Your task to perform on an android device: Open sound settings Image 0: 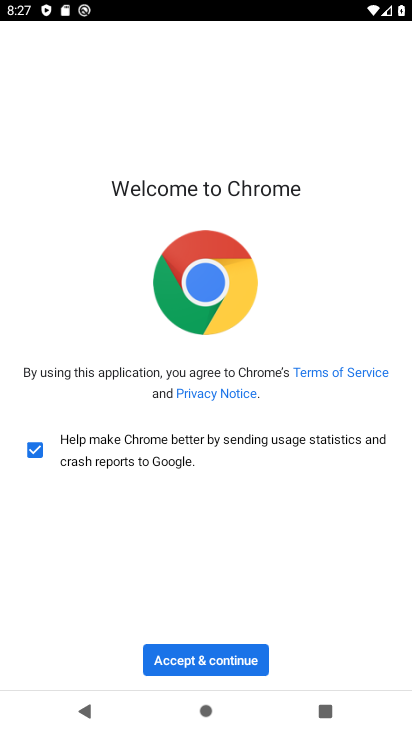
Step 0: click (247, 665)
Your task to perform on an android device: Open sound settings Image 1: 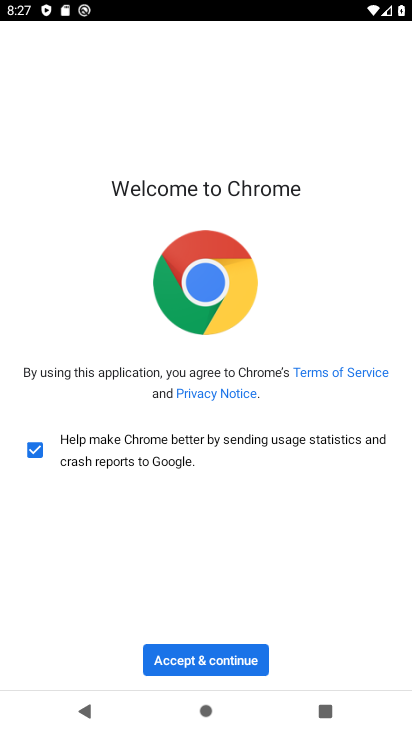
Step 1: click (246, 664)
Your task to perform on an android device: Open sound settings Image 2: 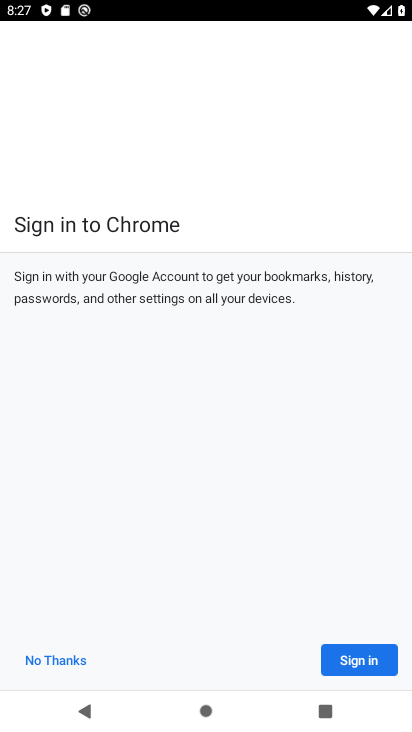
Step 2: click (246, 664)
Your task to perform on an android device: Open sound settings Image 3: 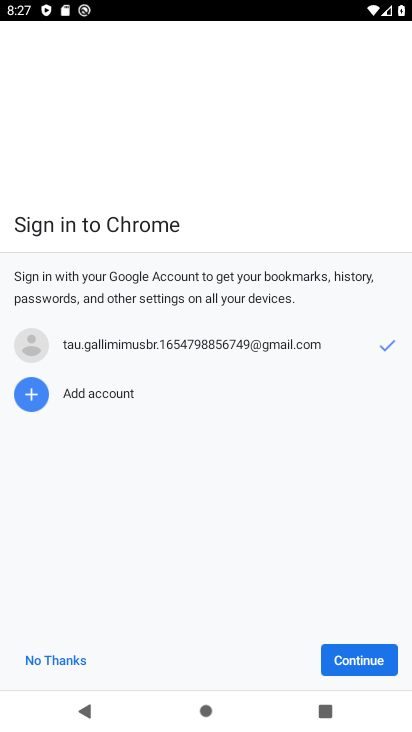
Step 3: press back button
Your task to perform on an android device: Open sound settings Image 4: 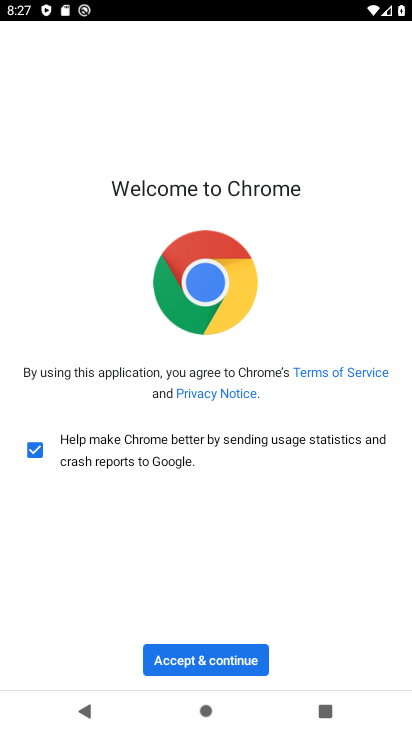
Step 4: press back button
Your task to perform on an android device: Open sound settings Image 5: 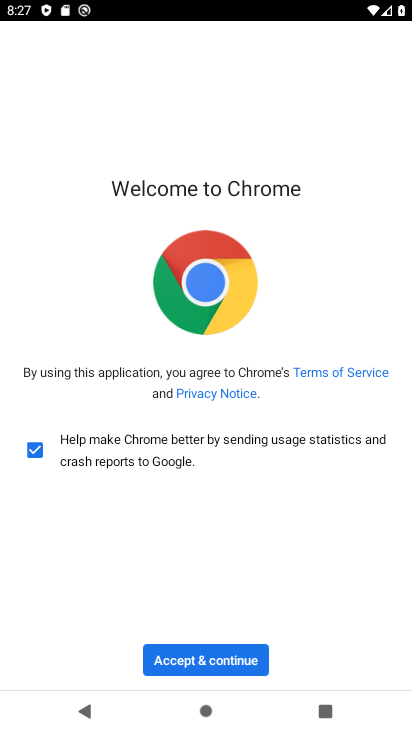
Step 5: press back button
Your task to perform on an android device: Open sound settings Image 6: 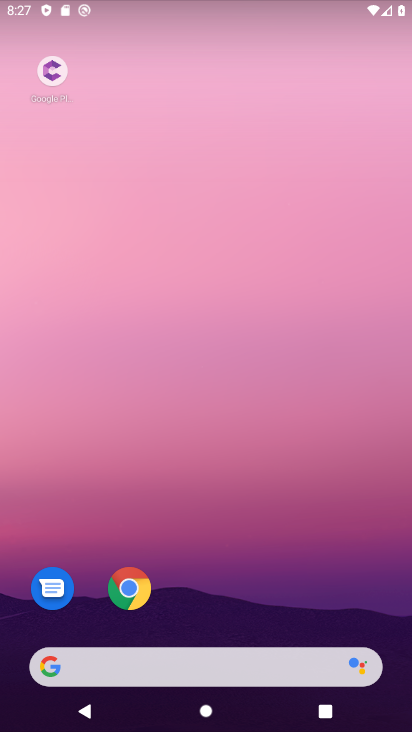
Step 6: press home button
Your task to perform on an android device: Open sound settings Image 7: 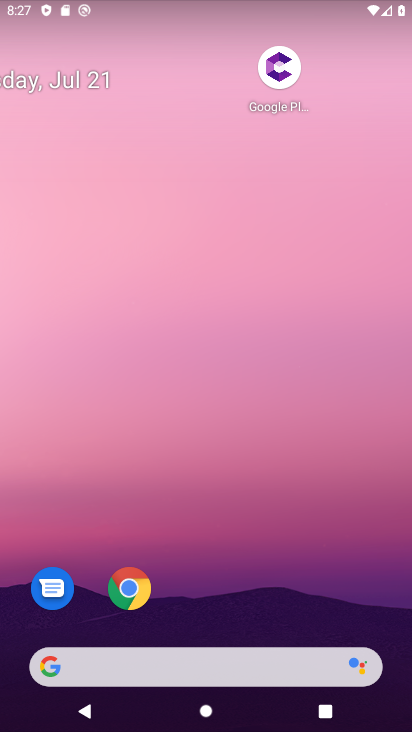
Step 7: press home button
Your task to perform on an android device: Open sound settings Image 8: 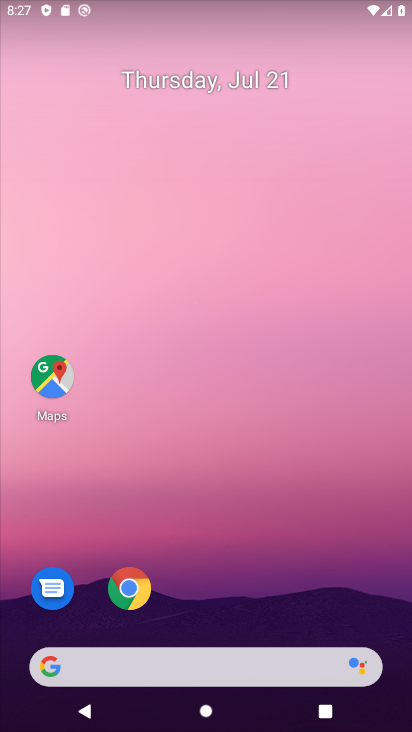
Step 8: drag from (278, 500) to (208, 257)
Your task to perform on an android device: Open sound settings Image 9: 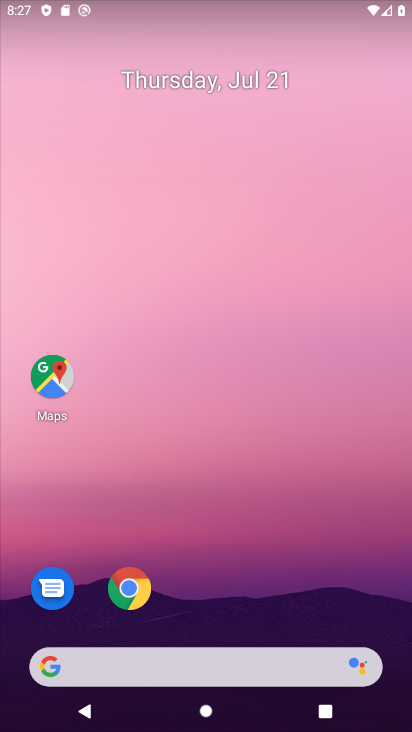
Step 9: drag from (193, 201) to (194, 157)
Your task to perform on an android device: Open sound settings Image 10: 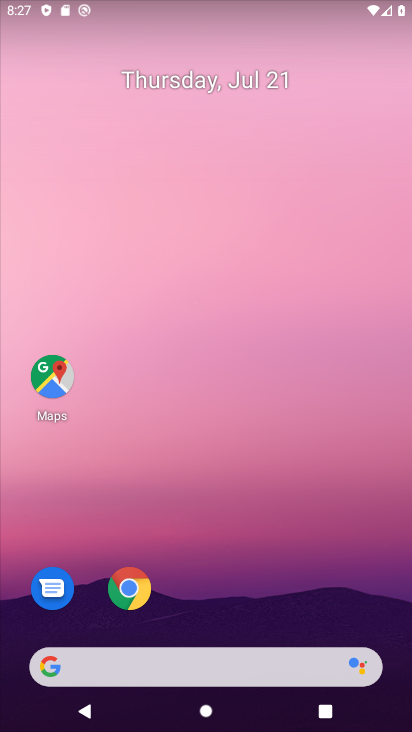
Step 10: click (215, 226)
Your task to perform on an android device: Open sound settings Image 11: 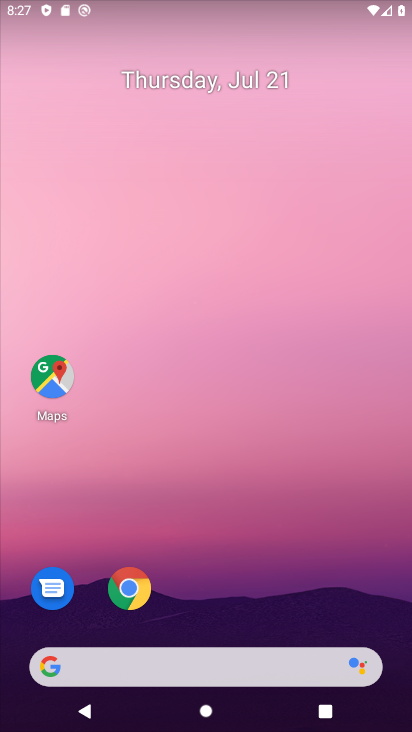
Step 11: drag from (239, 197) to (239, 63)
Your task to perform on an android device: Open sound settings Image 12: 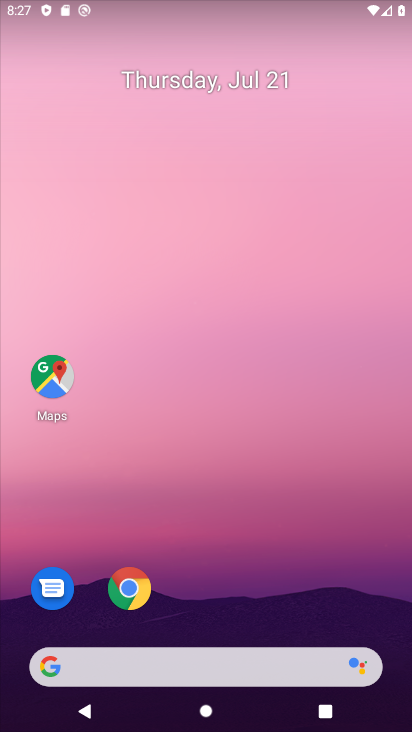
Step 12: drag from (231, 424) to (243, 50)
Your task to perform on an android device: Open sound settings Image 13: 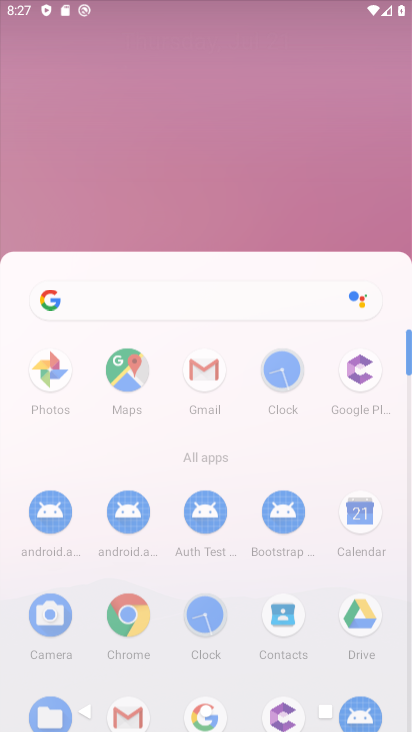
Step 13: drag from (171, 662) to (202, 171)
Your task to perform on an android device: Open sound settings Image 14: 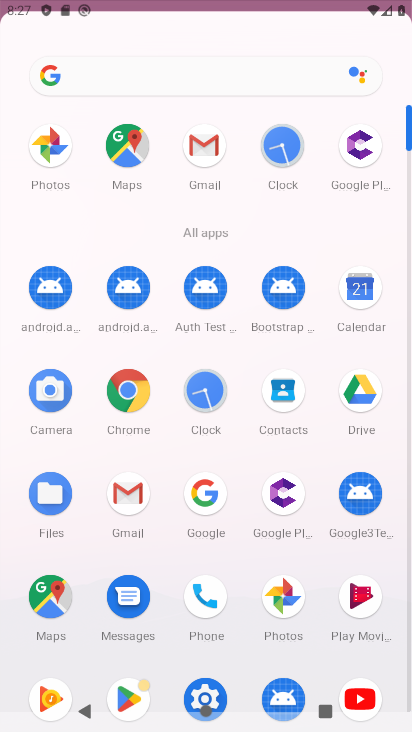
Step 14: drag from (219, 475) to (213, 97)
Your task to perform on an android device: Open sound settings Image 15: 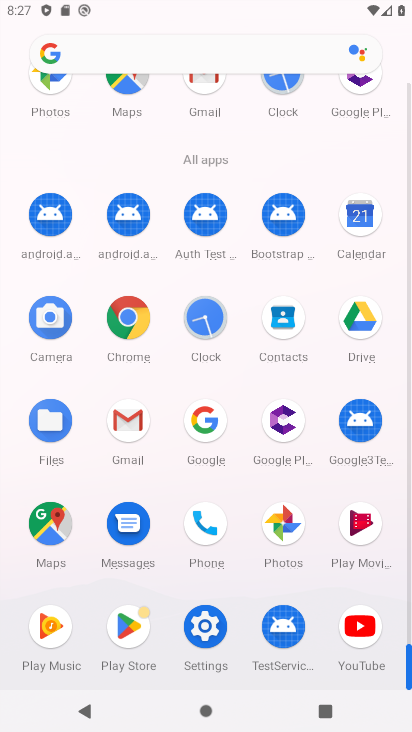
Step 15: click (200, 634)
Your task to perform on an android device: Open sound settings Image 16: 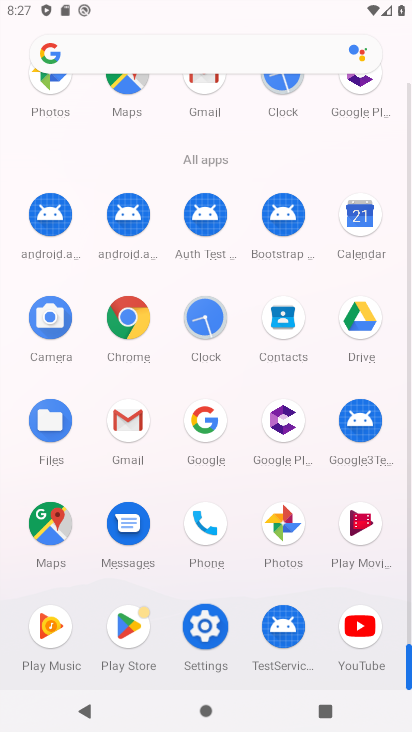
Step 16: click (200, 631)
Your task to perform on an android device: Open sound settings Image 17: 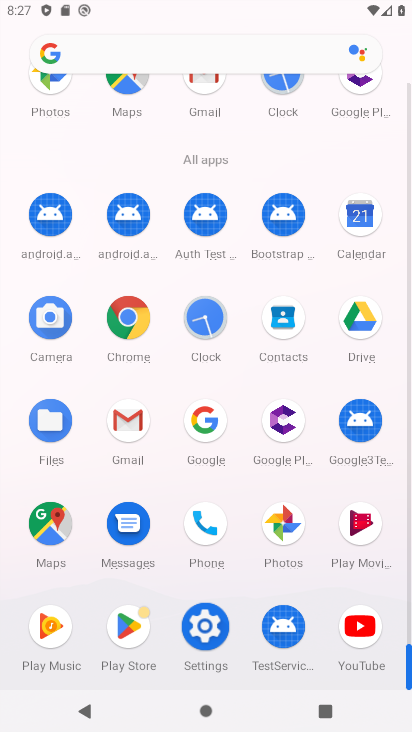
Step 17: click (203, 629)
Your task to perform on an android device: Open sound settings Image 18: 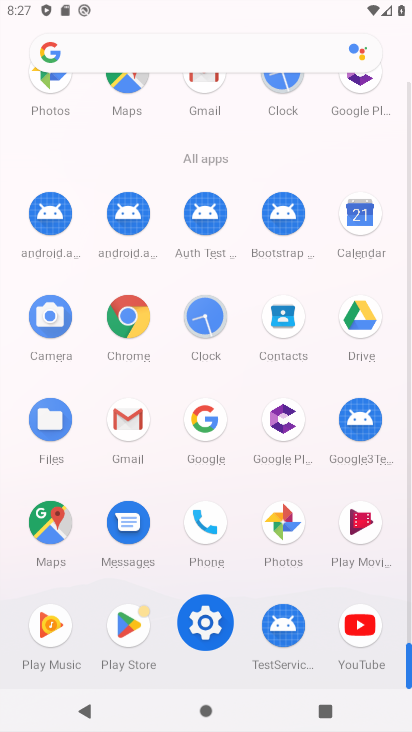
Step 18: click (213, 611)
Your task to perform on an android device: Open sound settings Image 19: 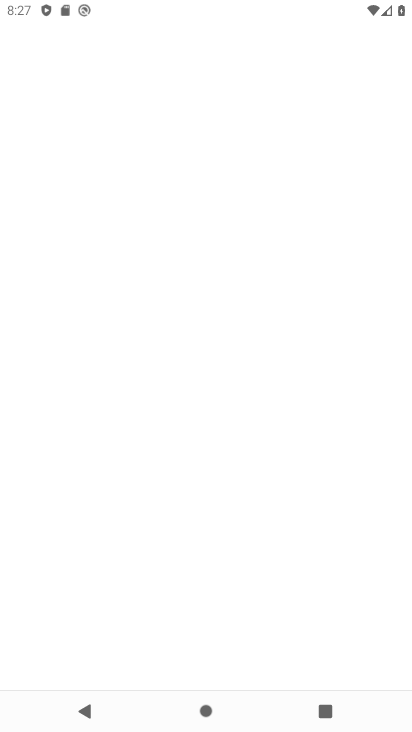
Step 19: click (213, 611)
Your task to perform on an android device: Open sound settings Image 20: 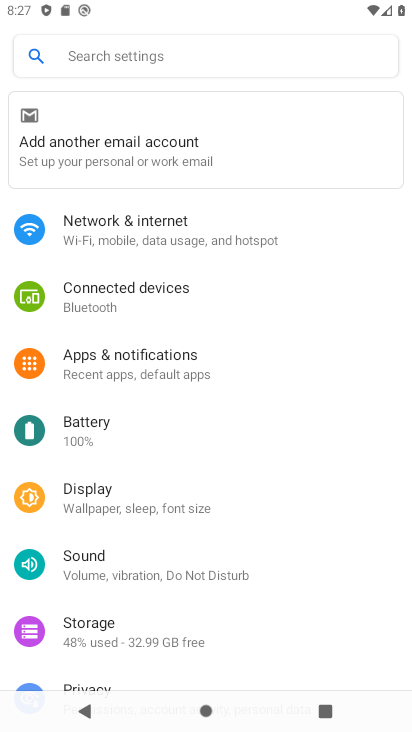
Step 20: click (78, 573)
Your task to perform on an android device: Open sound settings Image 21: 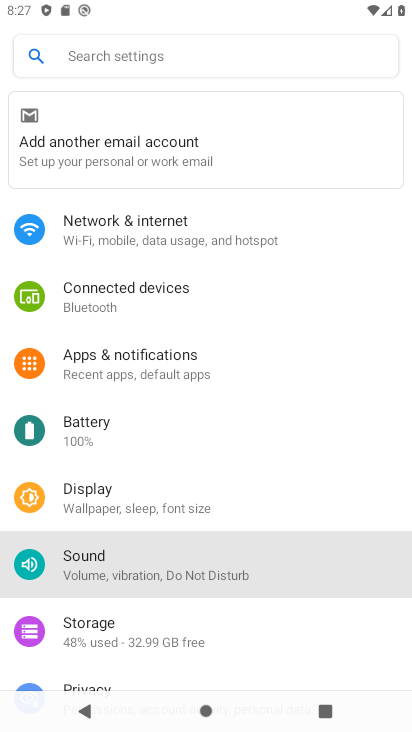
Step 21: click (82, 567)
Your task to perform on an android device: Open sound settings Image 22: 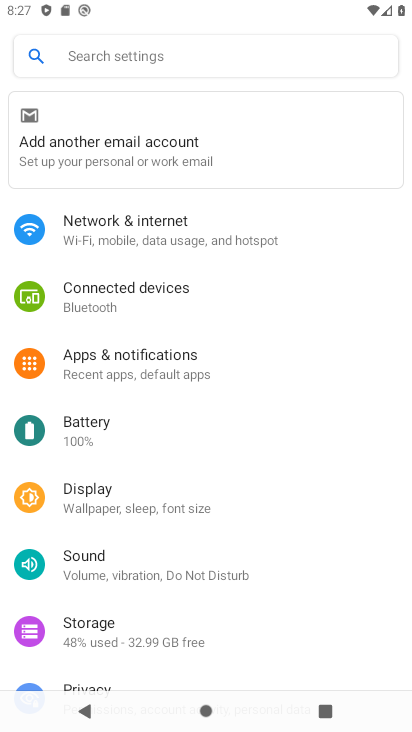
Step 22: click (89, 556)
Your task to perform on an android device: Open sound settings Image 23: 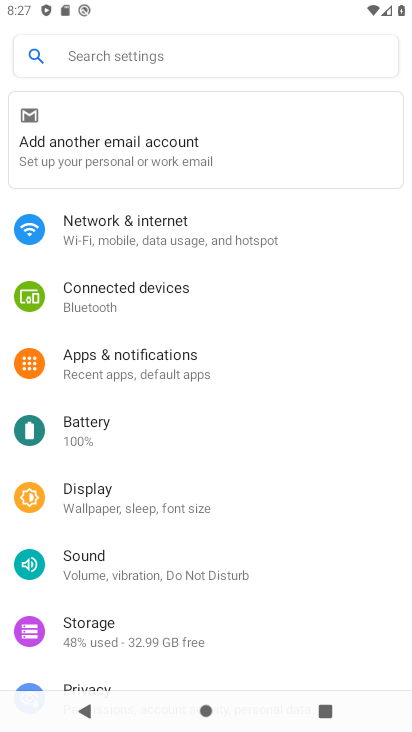
Step 23: click (90, 555)
Your task to perform on an android device: Open sound settings Image 24: 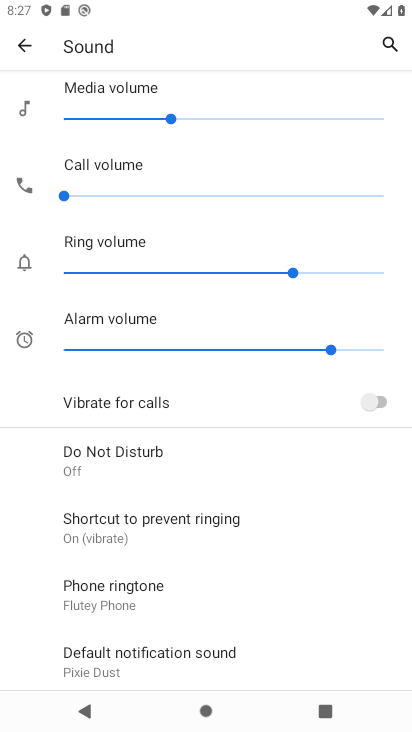
Step 24: task complete